Your task to perform on an android device: clear history in the chrome app Image 0: 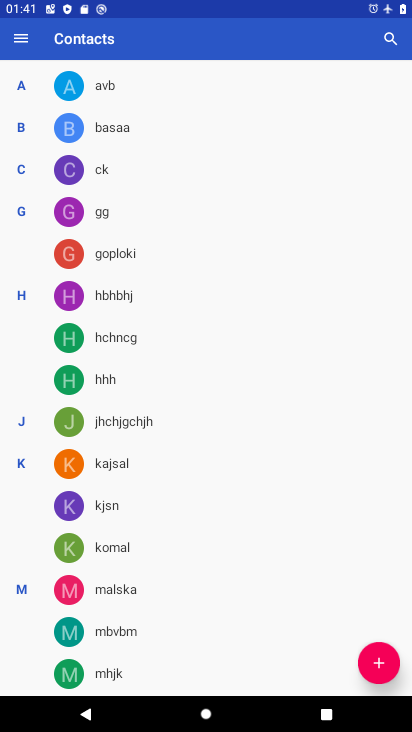
Step 0: press home button
Your task to perform on an android device: clear history in the chrome app Image 1: 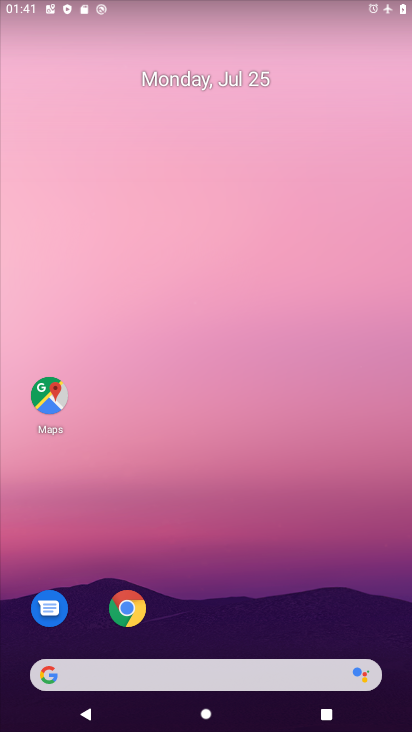
Step 1: drag from (202, 655) to (59, 684)
Your task to perform on an android device: clear history in the chrome app Image 2: 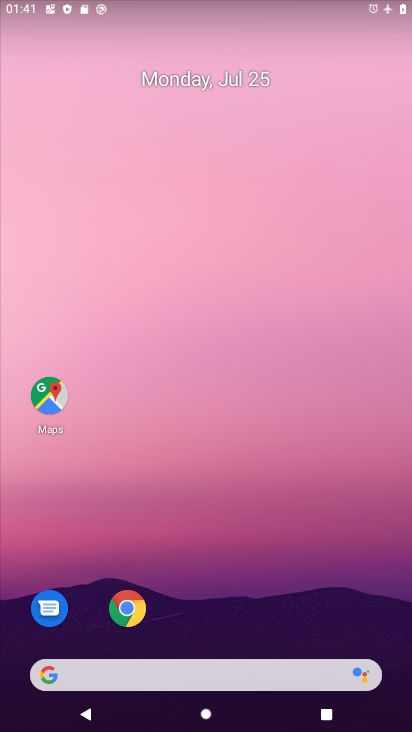
Step 2: drag from (224, 639) to (246, 62)
Your task to perform on an android device: clear history in the chrome app Image 3: 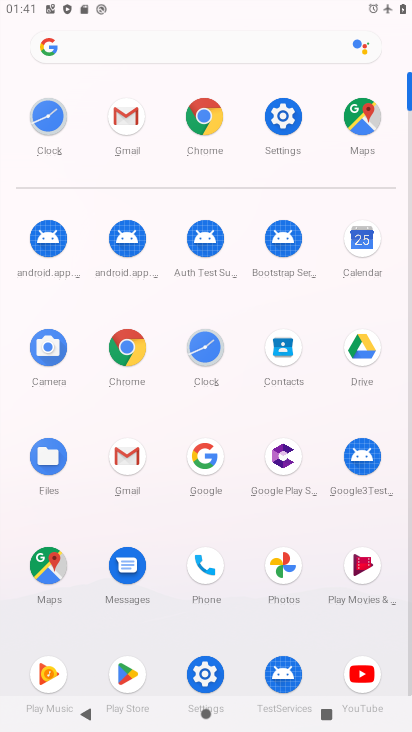
Step 3: click (118, 357)
Your task to perform on an android device: clear history in the chrome app Image 4: 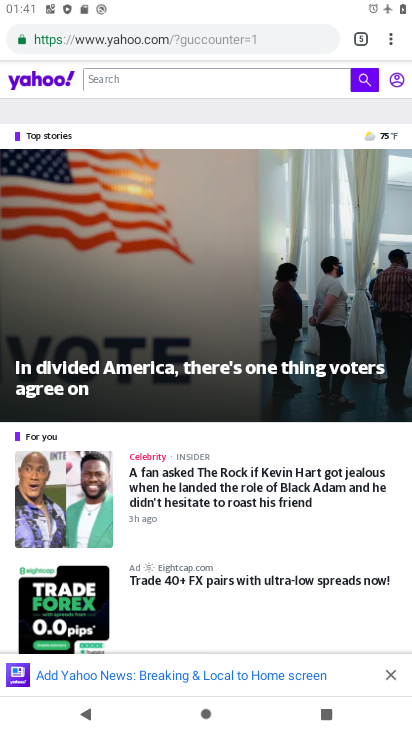
Step 4: drag from (385, 40) to (253, 426)
Your task to perform on an android device: clear history in the chrome app Image 5: 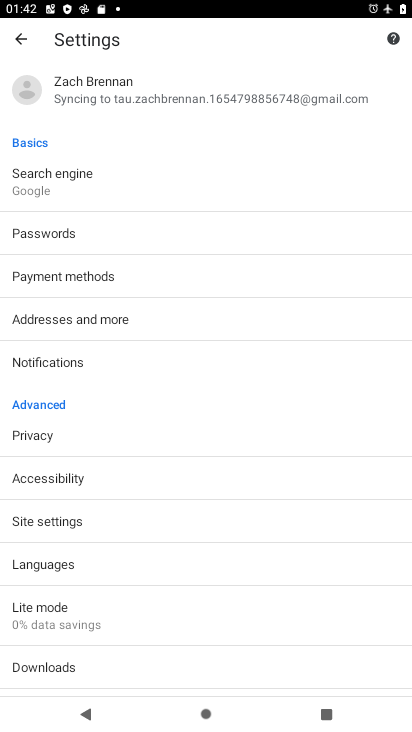
Step 5: drag from (138, 628) to (122, 287)
Your task to perform on an android device: clear history in the chrome app Image 6: 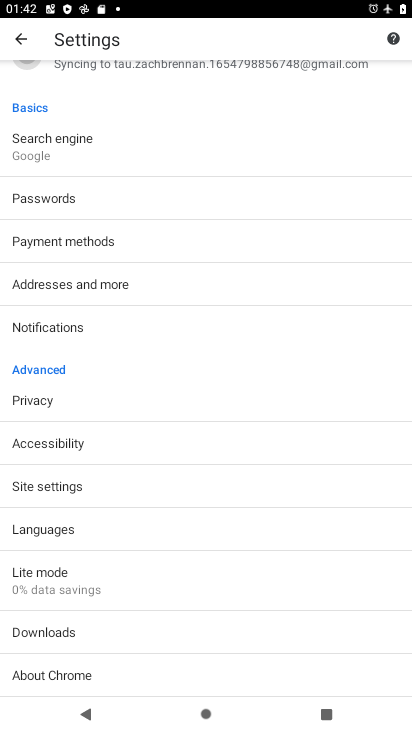
Step 6: drag from (86, 549) to (90, 178)
Your task to perform on an android device: clear history in the chrome app Image 7: 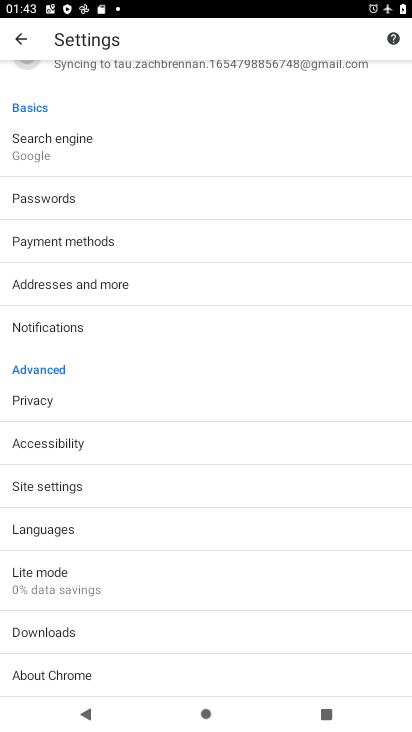
Step 7: drag from (77, 587) to (67, 544)
Your task to perform on an android device: clear history in the chrome app Image 8: 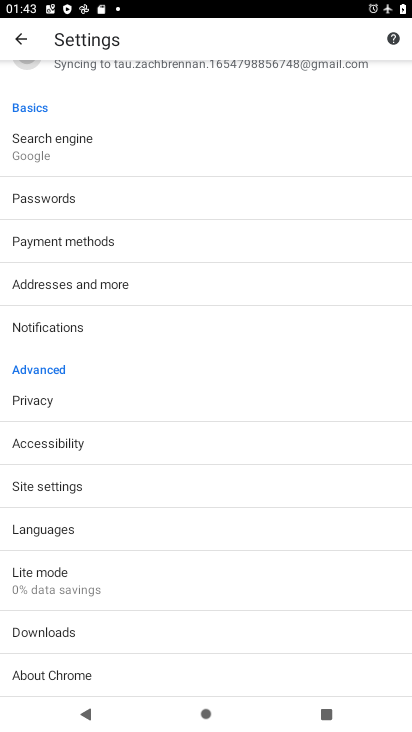
Step 8: click (56, 401)
Your task to perform on an android device: clear history in the chrome app Image 9: 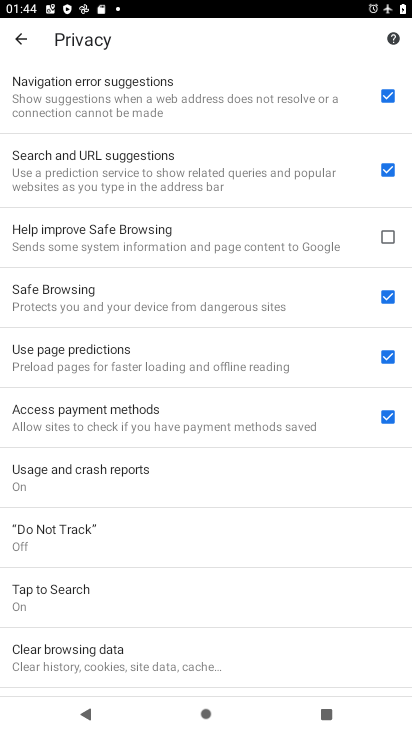
Step 9: click (182, 651)
Your task to perform on an android device: clear history in the chrome app Image 10: 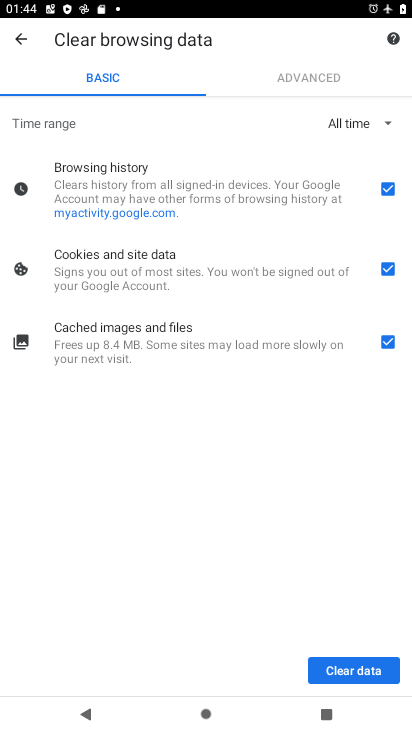
Step 10: click (350, 672)
Your task to perform on an android device: clear history in the chrome app Image 11: 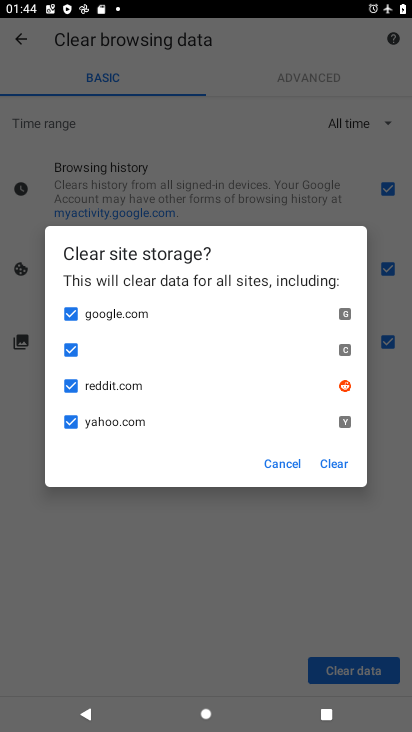
Step 11: click (337, 456)
Your task to perform on an android device: clear history in the chrome app Image 12: 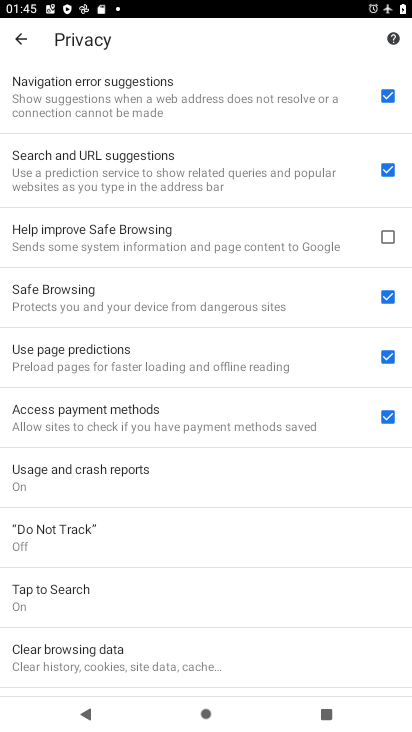
Step 12: task complete